Your task to perform on an android device: Is it going to rain this weekend? Image 0: 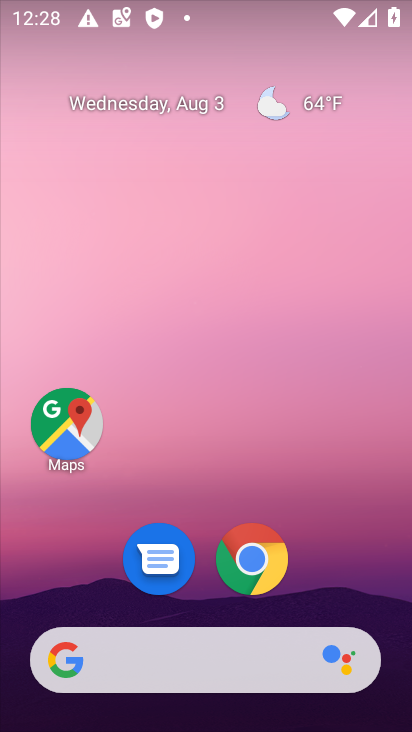
Step 0: click (271, 106)
Your task to perform on an android device: Is it going to rain this weekend? Image 1: 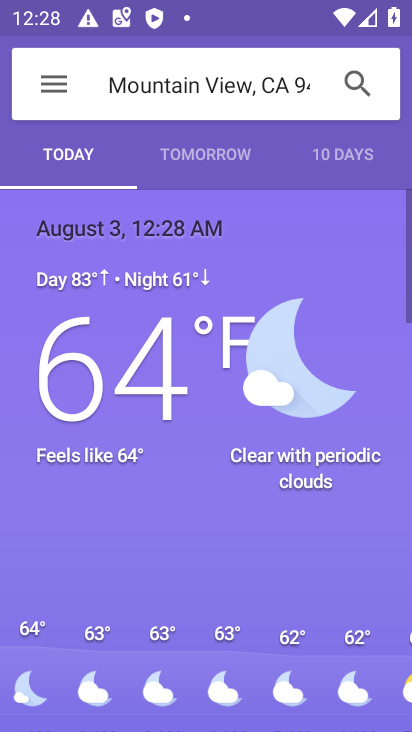
Step 1: click (340, 155)
Your task to perform on an android device: Is it going to rain this weekend? Image 2: 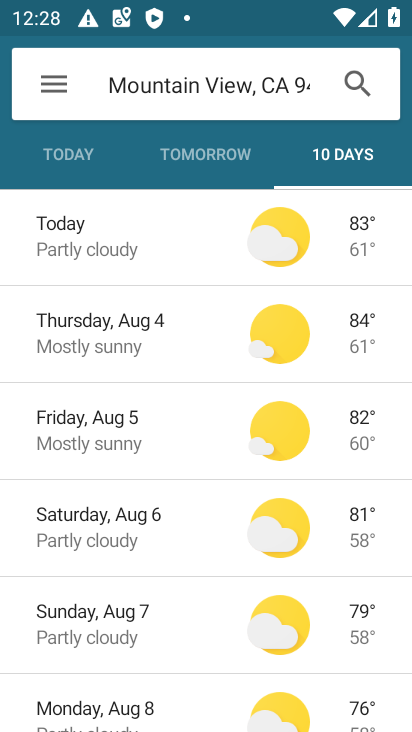
Step 2: click (135, 532)
Your task to perform on an android device: Is it going to rain this weekend? Image 3: 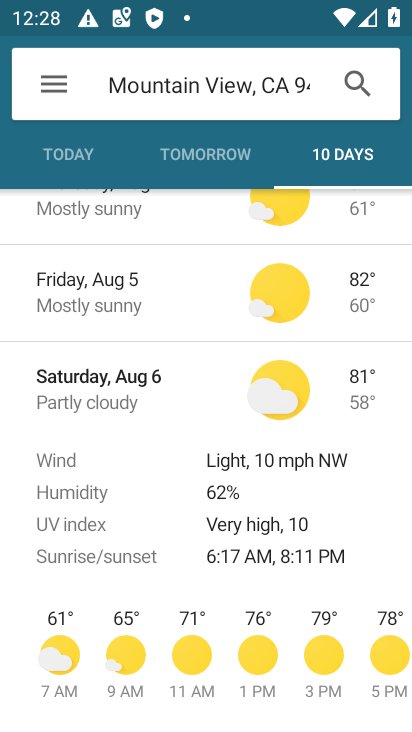
Step 3: task complete